Your task to perform on an android device: turn off wifi Image 0: 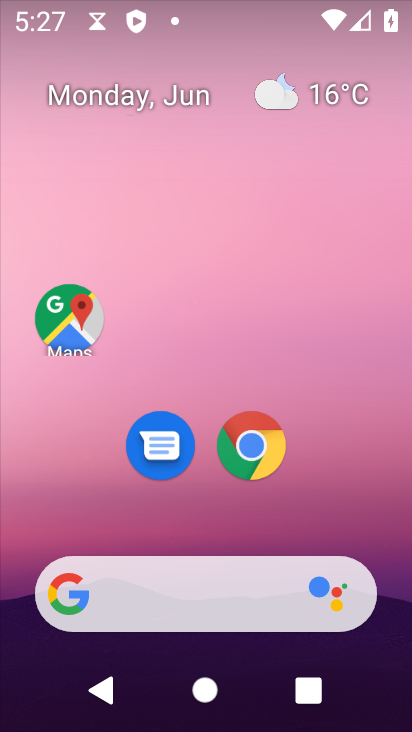
Step 0: drag from (341, 515) to (228, 33)
Your task to perform on an android device: turn off wifi Image 1: 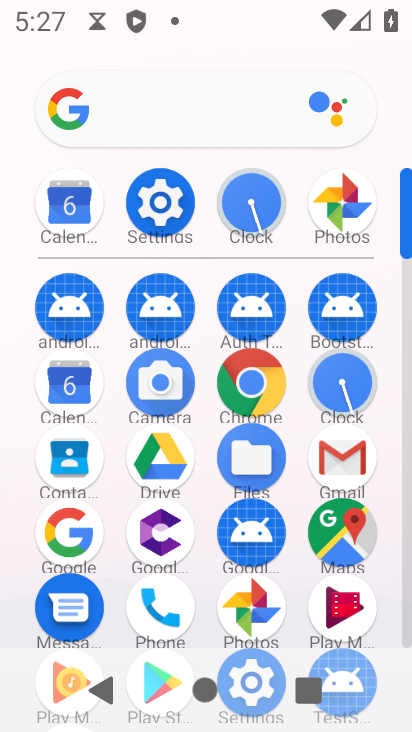
Step 1: click (156, 202)
Your task to perform on an android device: turn off wifi Image 2: 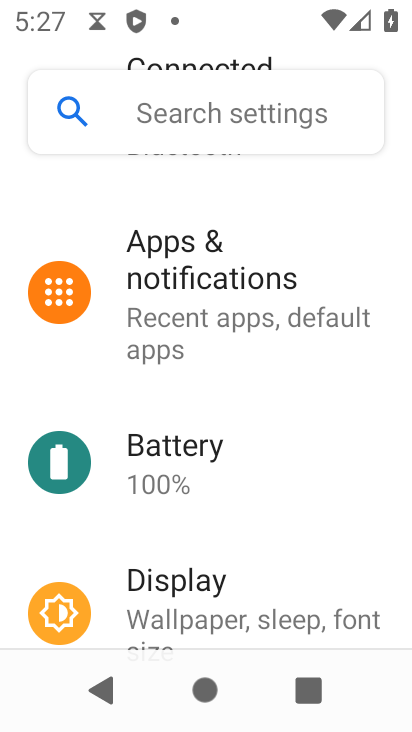
Step 2: drag from (286, 213) to (268, 608)
Your task to perform on an android device: turn off wifi Image 3: 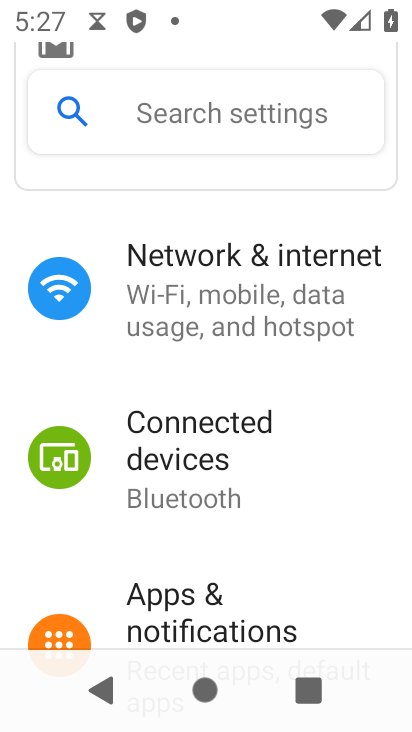
Step 3: click (308, 281)
Your task to perform on an android device: turn off wifi Image 4: 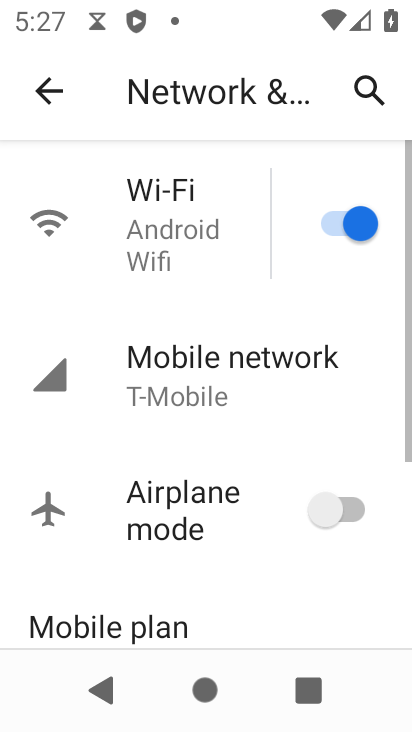
Step 4: click (342, 228)
Your task to perform on an android device: turn off wifi Image 5: 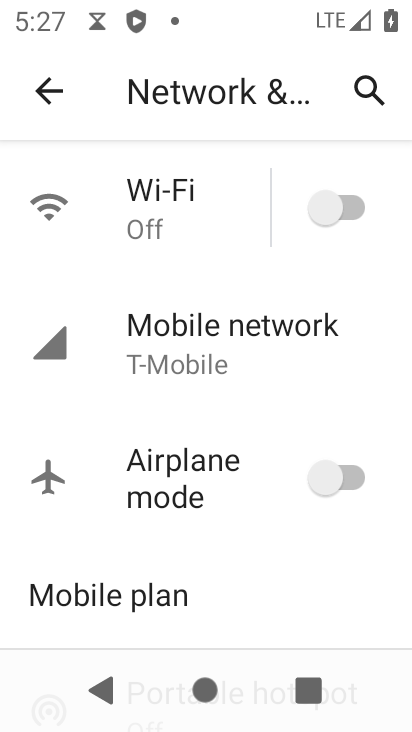
Step 5: task complete